Your task to perform on an android device: allow notifications from all sites in the chrome app Image 0: 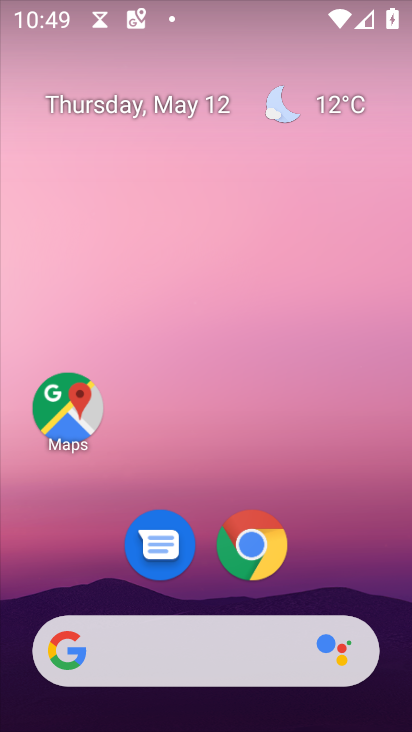
Step 0: click (243, 537)
Your task to perform on an android device: allow notifications from all sites in the chrome app Image 1: 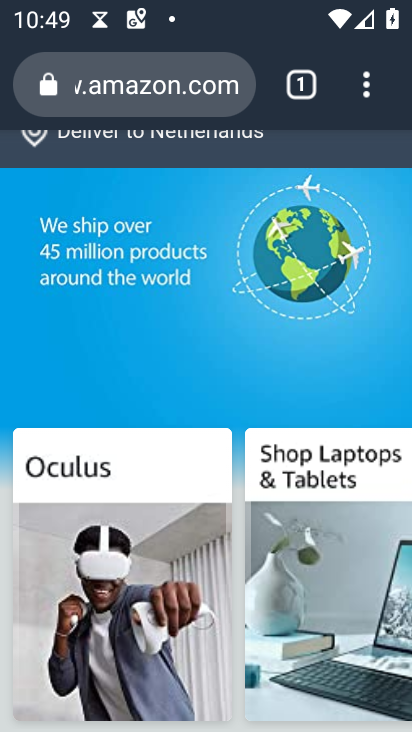
Step 1: click (368, 79)
Your task to perform on an android device: allow notifications from all sites in the chrome app Image 2: 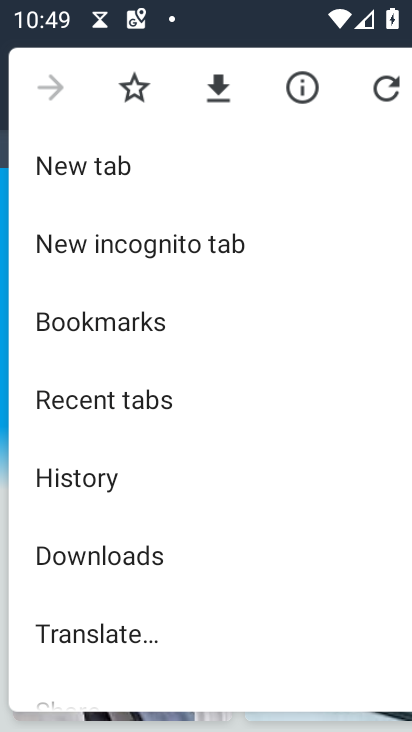
Step 2: drag from (185, 623) to (179, 147)
Your task to perform on an android device: allow notifications from all sites in the chrome app Image 3: 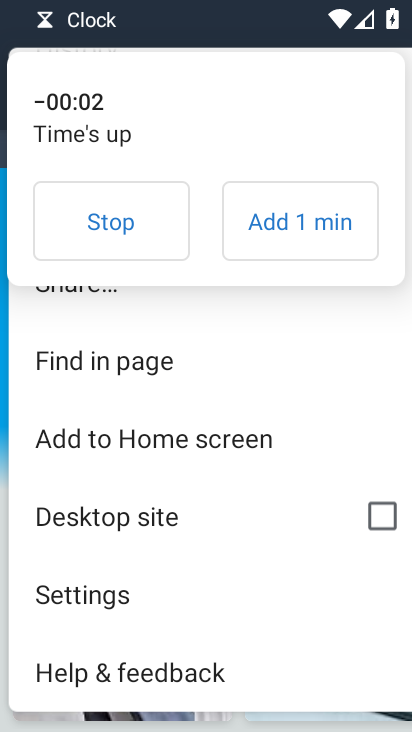
Step 3: click (115, 231)
Your task to perform on an android device: allow notifications from all sites in the chrome app Image 4: 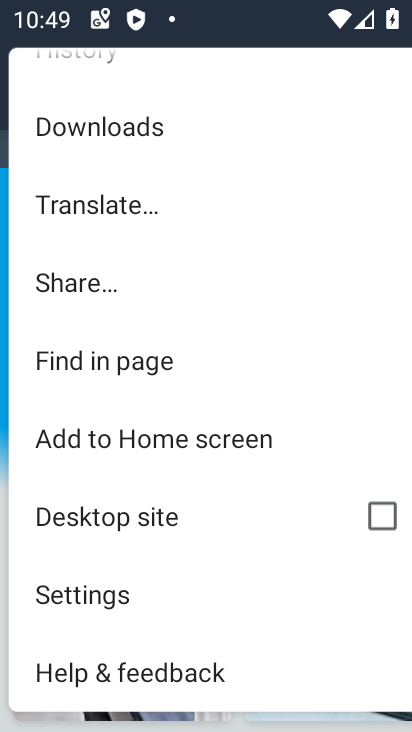
Step 4: click (139, 588)
Your task to perform on an android device: allow notifications from all sites in the chrome app Image 5: 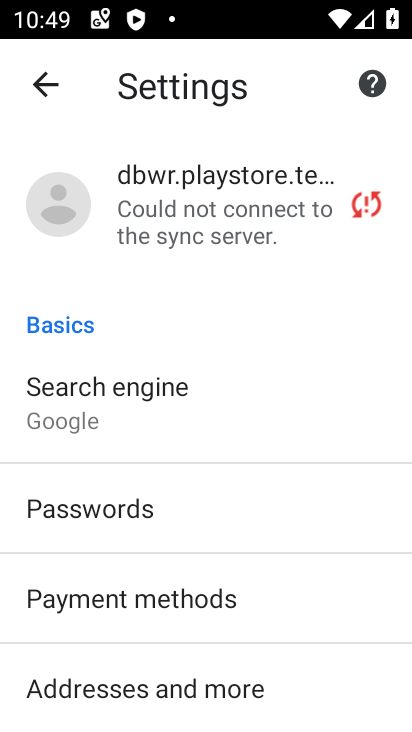
Step 5: drag from (268, 658) to (276, 252)
Your task to perform on an android device: allow notifications from all sites in the chrome app Image 6: 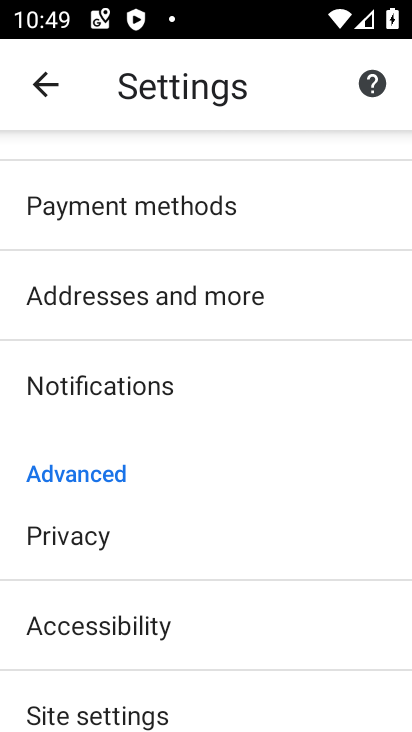
Step 6: click (187, 375)
Your task to perform on an android device: allow notifications from all sites in the chrome app Image 7: 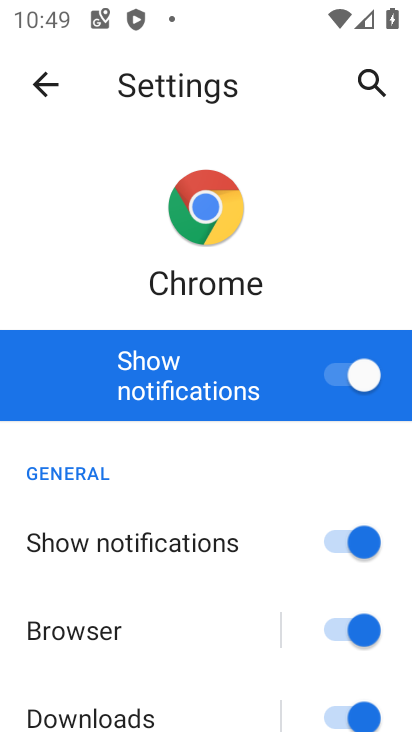
Step 7: task complete